Your task to perform on an android device: Do I have any events this weekend? Image 0: 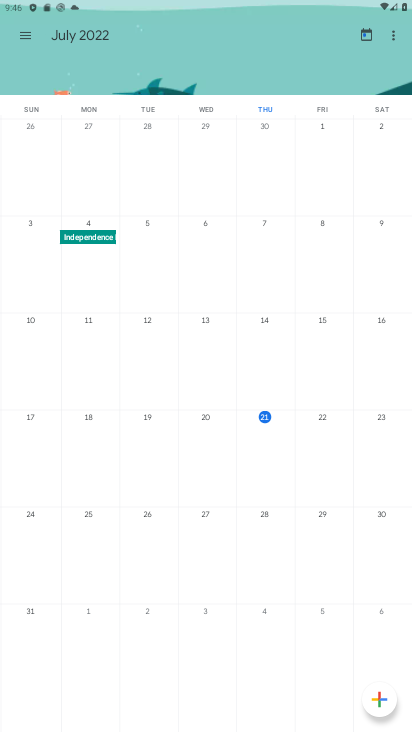
Step 0: task complete